Your task to perform on an android device: add a contact Image 0: 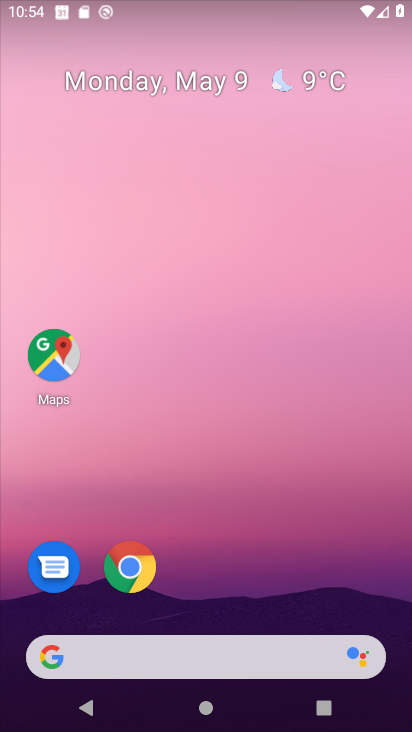
Step 0: drag from (186, 609) to (203, 52)
Your task to perform on an android device: add a contact Image 1: 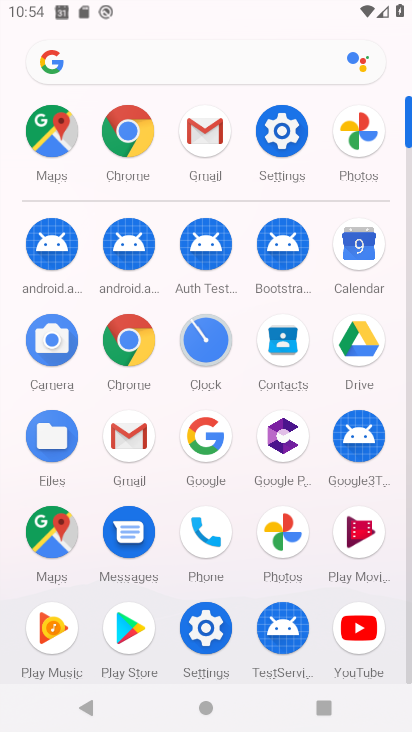
Step 1: click (282, 334)
Your task to perform on an android device: add a contact Image 2: 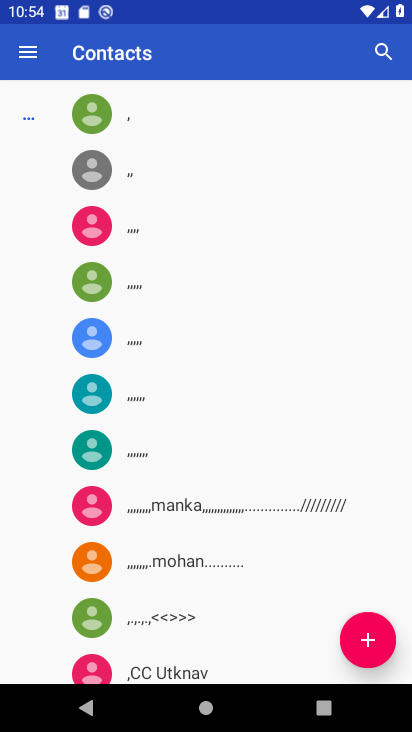
Step 2: click (370, 636)
Your task to perform on an android device: add a contact Image 3: 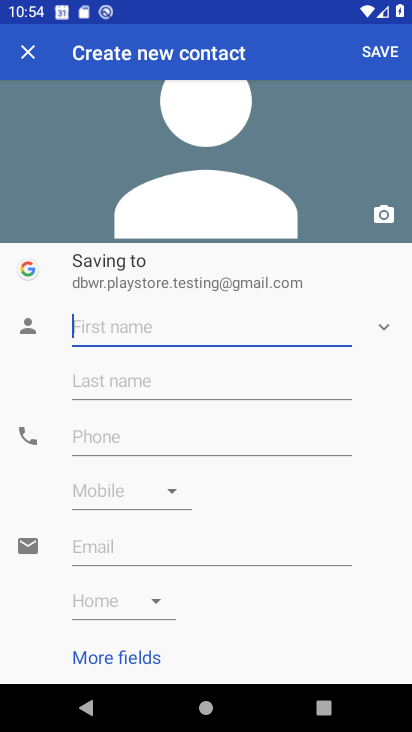
Step 3: type "hhghtd"
Your task to perform on an android device: add a contact Image 4: 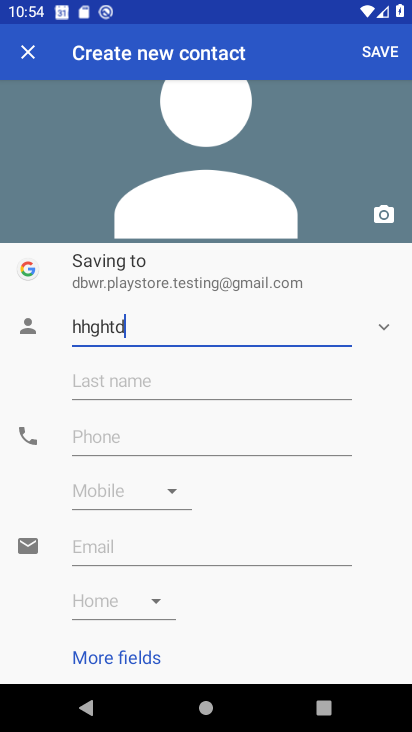
Step 4: click (374, 59)
Your task to perform on an android device: add a contact Image 5: 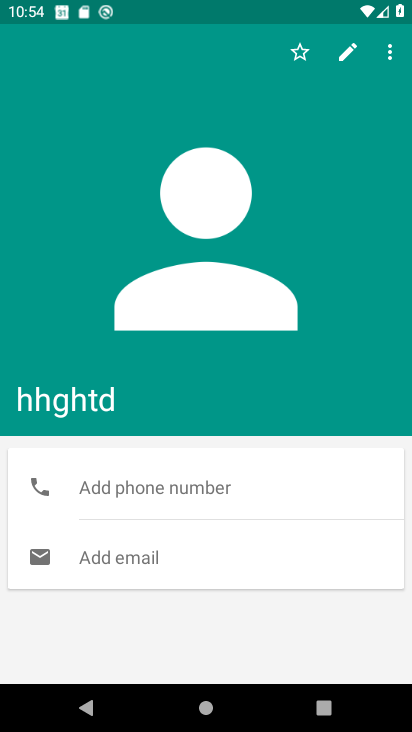
Step 5: task complete